Your task to perform on an android device: turn off sleep mode Image 0: 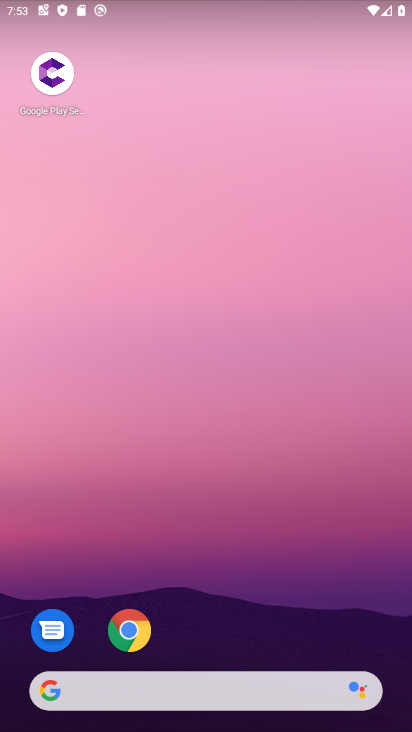
Step 0: drag from (253, 607) to (269, 136)
Your task to perform on an android device: turn off sleep mode Image 1: 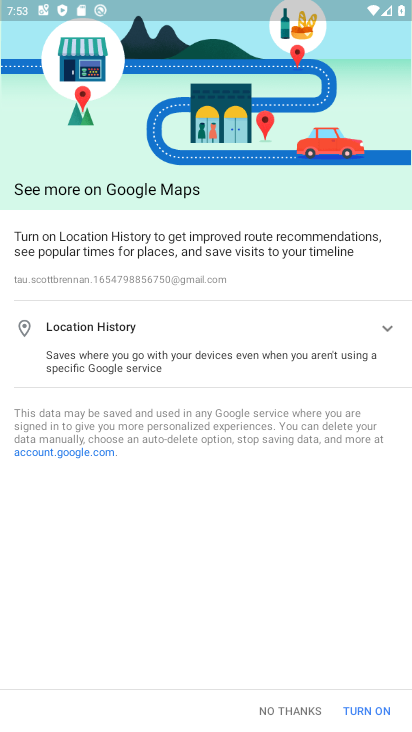
Step 1: press home button
Your task to perform on an android device: turn off sleep mode Image 2: 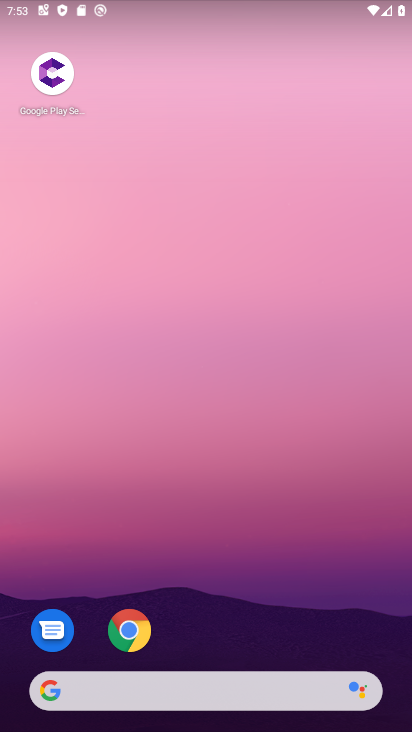
Step 2: drag from (321, 635) to (235, 125)
Your task to perform on an android device: turn off sleep mode Image 3: 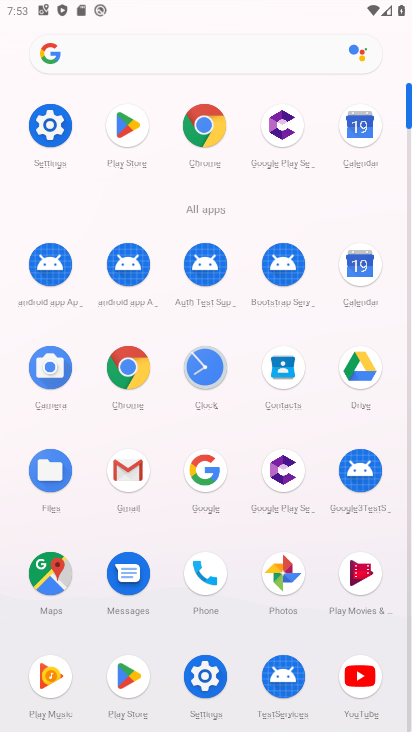
Step 3: click (54, 137)
Your task to perform on an android device: turn off sleep mode Image 4: 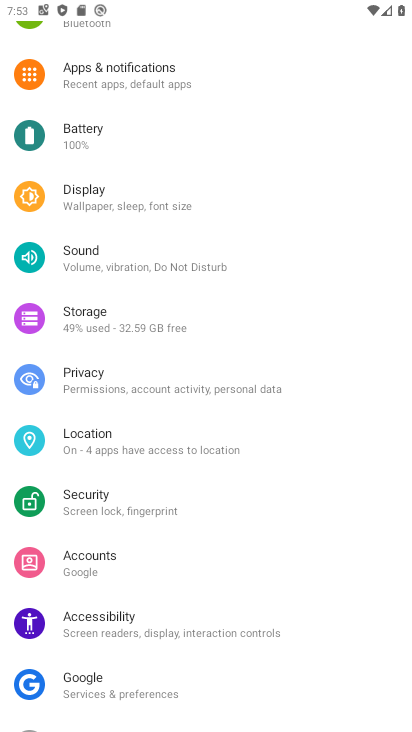
Step 4: click (97, 193)
Your task to perform on an android device: turn off sleep mode Image 5: 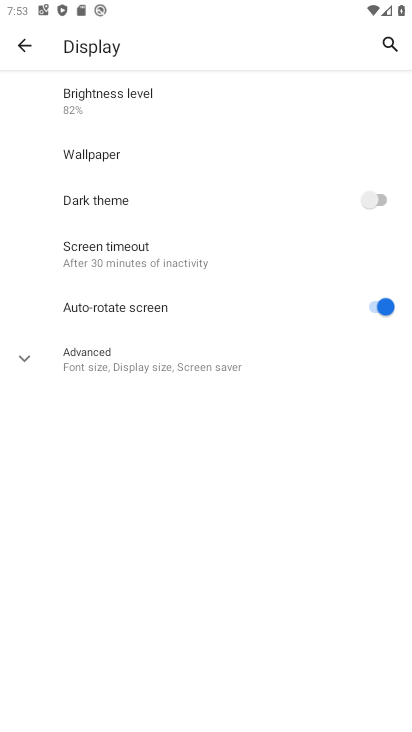
Step 5: click (155, 267)
Your task to perform on an android device: turn off sleep mode Image 6: 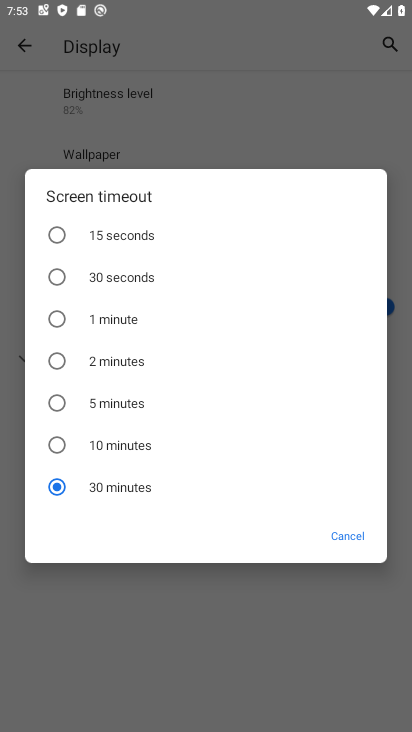
Step 6: task complete